Your task to perform on an android device: allow cookies in the chrome app Image 0: 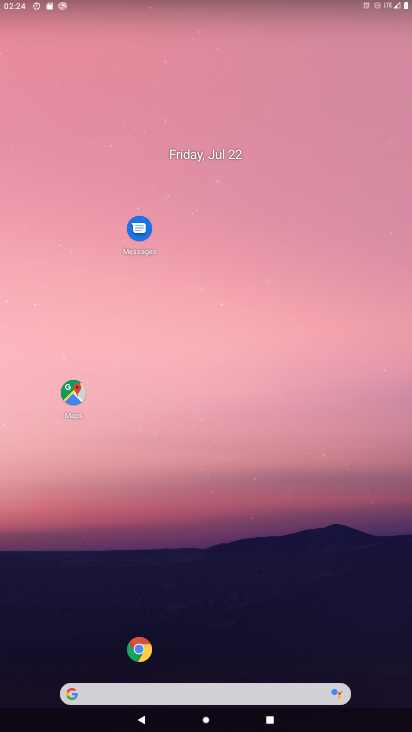
Step 0: click (145, 646)
Your task to perform on an android device: allow cookies in the chrome app Image 1: 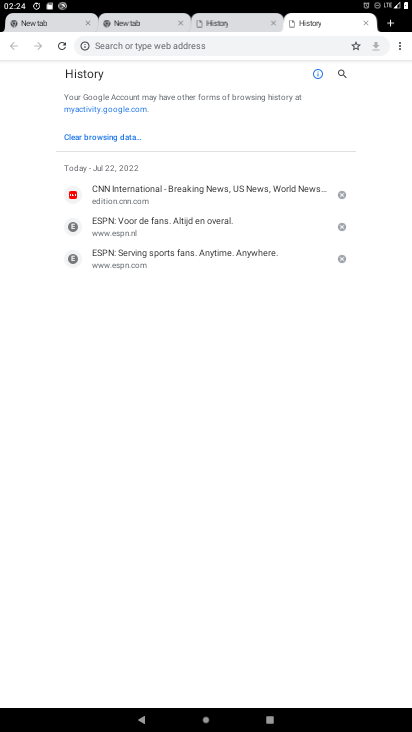
Step 1: click (398, 48)
Your task to perform on an android device: allow cookies in the chrome app Image 2: 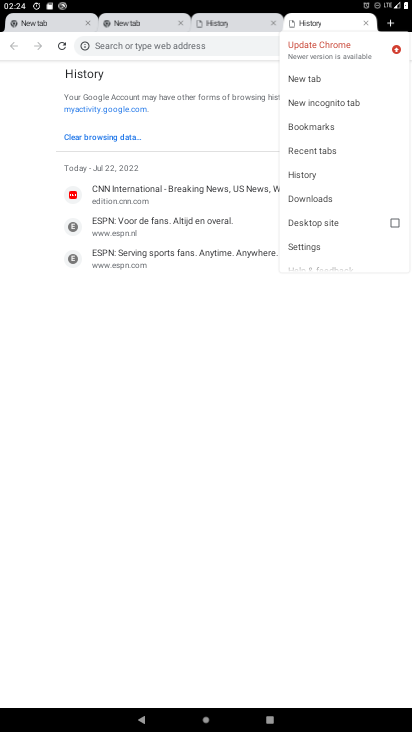
Step 2: click (310, 250)
Your task to perform on an android device: allow cookies in the chrome app Image 3: 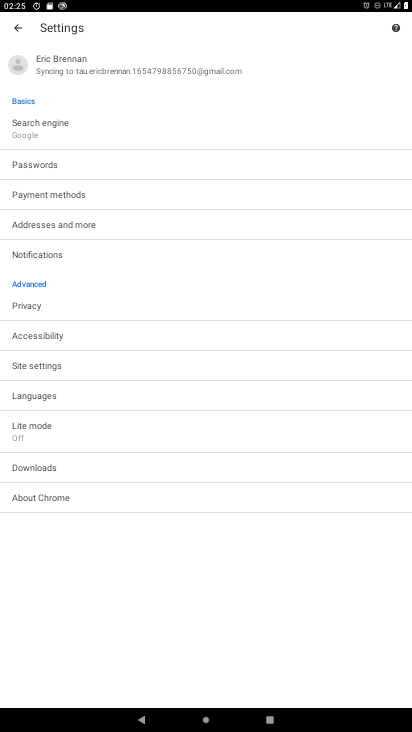
Step 3: click (34, 370)
Your task to perform on an android device: allow cookies in the chrome app Image 4: 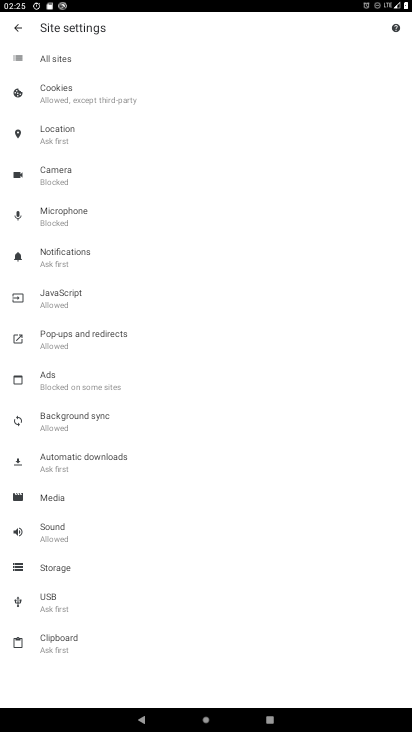
Step 4: click (57, 98)
Your task to perform on an android device: allow cookies in the chrome app Image 5: 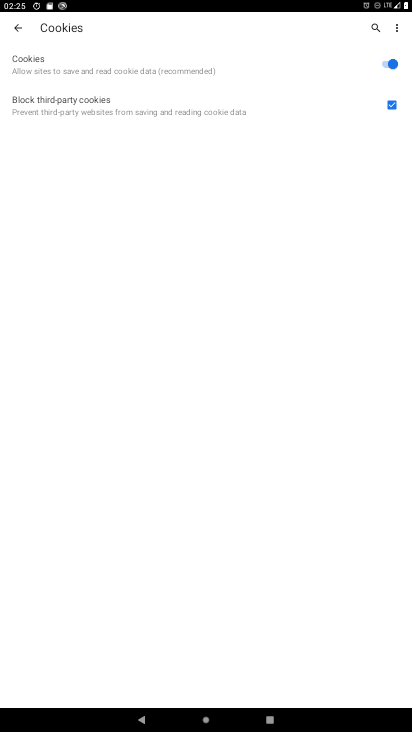
Step 5: task complete